Your task to perform on an android device: Go to CNN.com Image 0: 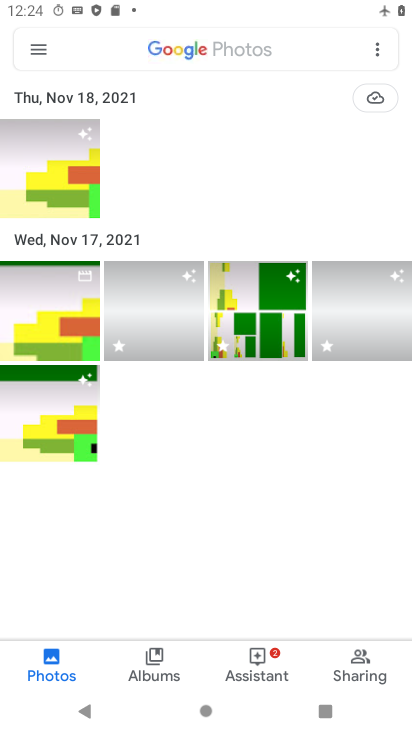
Step 0: press home button
Your task to perform on an android device: Go to CNN.com Image 1: 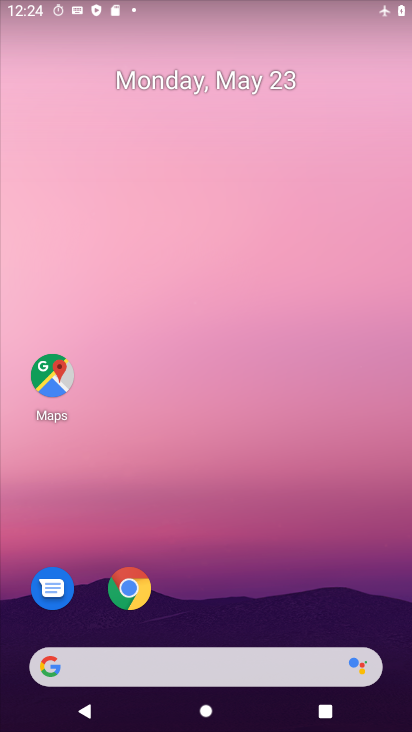
Step 1: click (132, 589)
Your task to perform on an android device: Go to CNN.com Image 2: 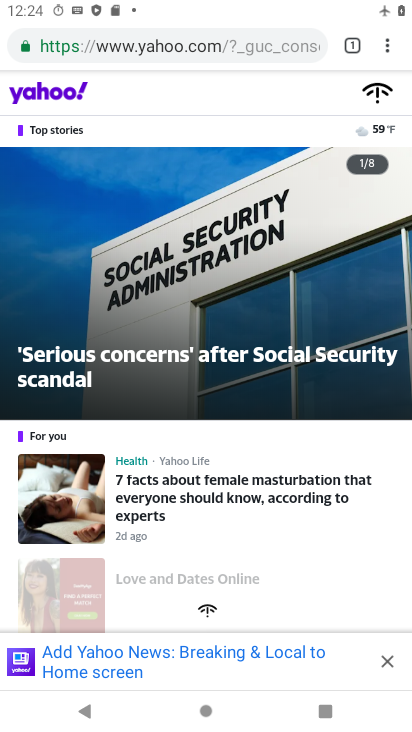
Step 2: click (386, 50)
Your task to perform on an android device: Go to CNN.com Image 3: 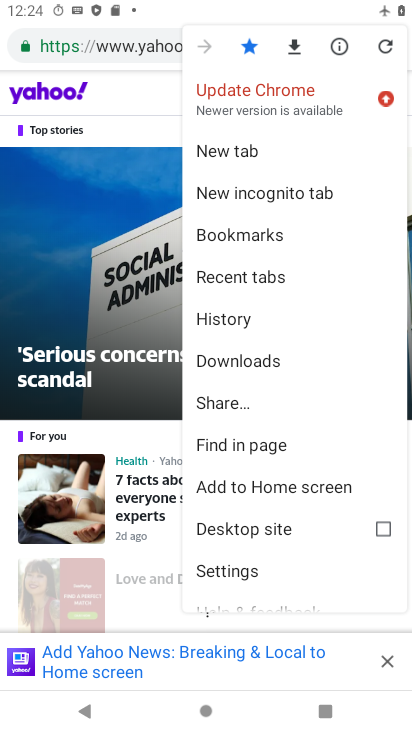
Step 3: click (221, 146)
Your task to perform on an android device: Go to CNN.com Image 4: 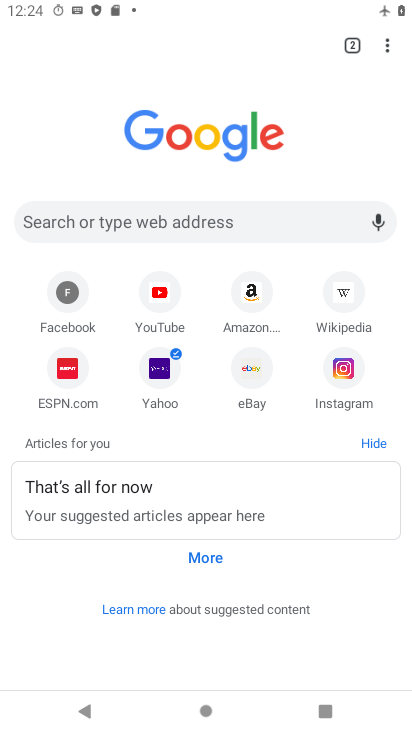
Step 4: click (144, 218)
Your task to perform on an android device: Go to CNN.com Image 5: 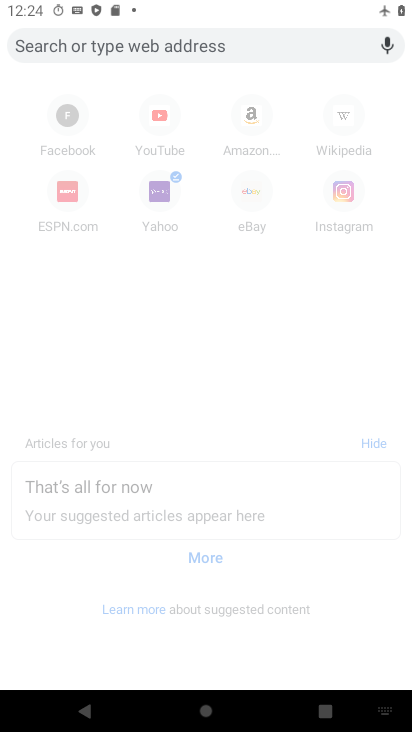
Step 5: type "CNN.com"
Your task to perform on an android device: Go to CNN.com Image 6: 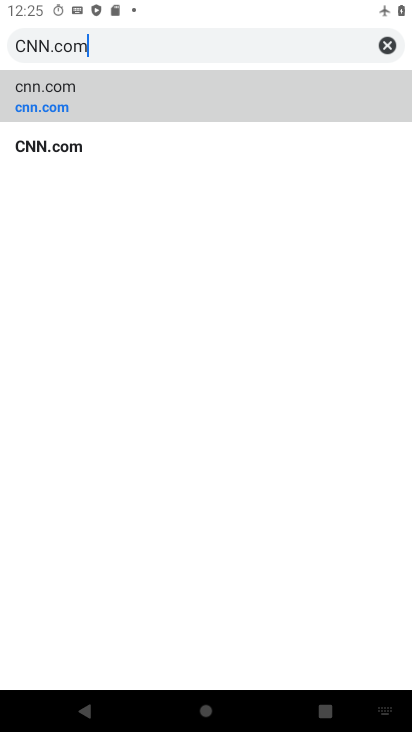
Step 6: click (73, 103)
Your task to perform on an android device: Go to CNN.com Image 7: 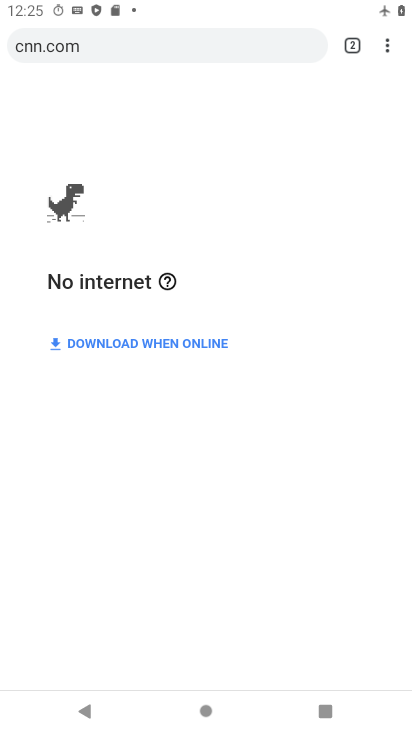
Step 7: task complete